Your task to perform on an android device: Go to CNN.com Image 0: 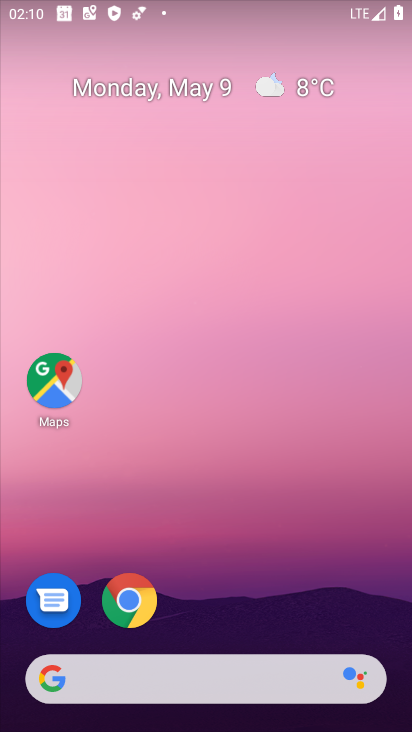
Step 0: click (124, 596)
Your task to perform on an android device: Go to CNN.com Image 1: 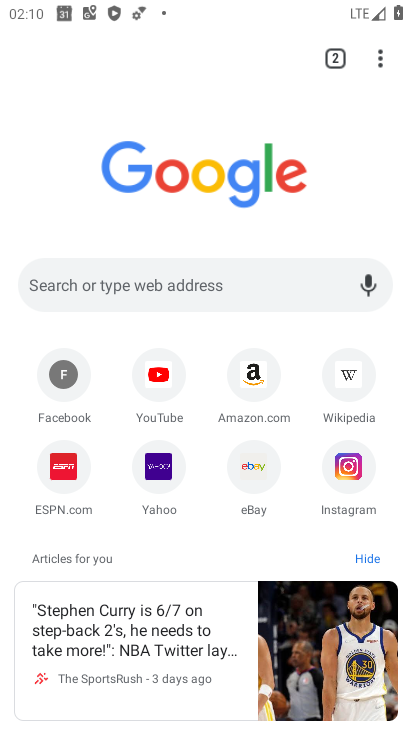
Step 1: click (140, 280)
Your task to perform on an android device: Go to CNN.com Image 2: 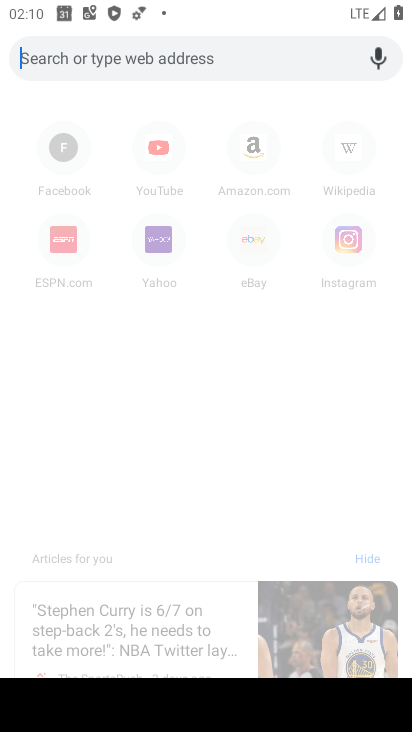
Step 2: type "cnn.com"
Your task to perform on an android device: Go to CNN.com Image 3: 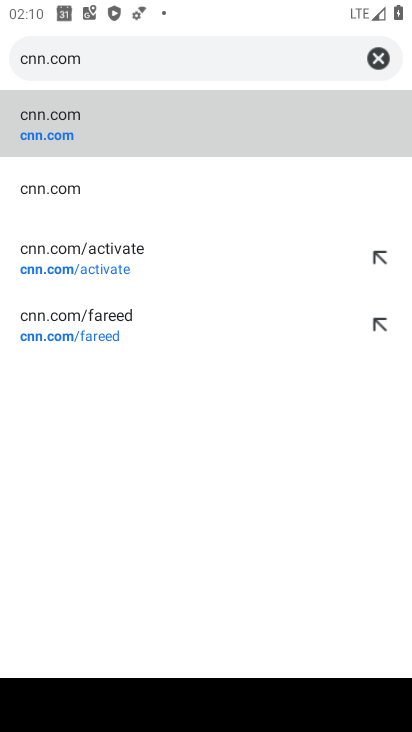
Step 3: click (133, 274)
Your task to perform on an android device: Go to CNN.com Image 4: 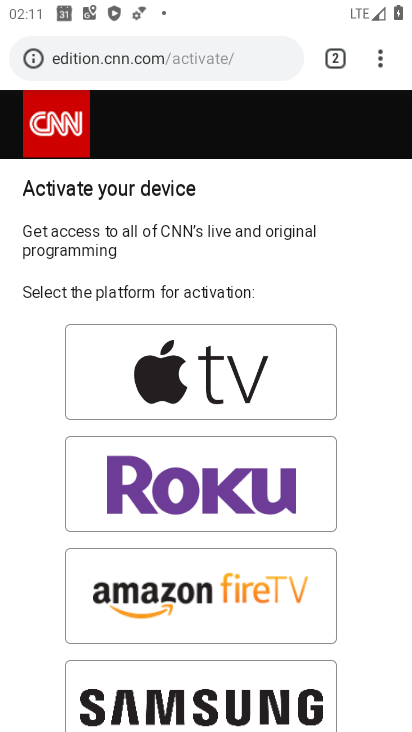
Step 4: task complete